Your task to perform on an android device: Open the Play Movies app and select the watchlist tab. Image 0: 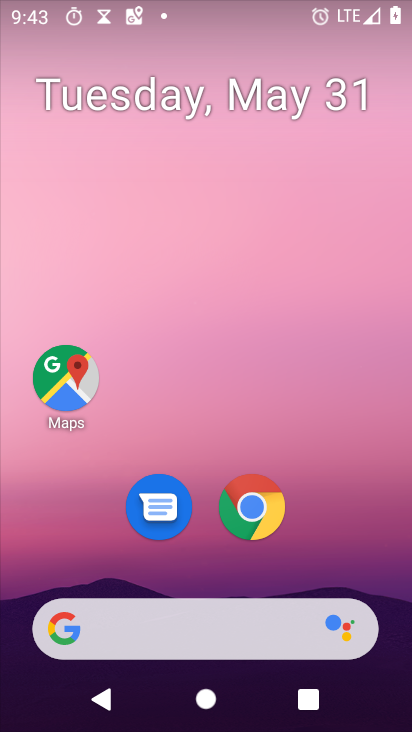
Step 0: drag from (24, 619) to (323, 234)
Your task to perform on an android device: Open the Play Movies app and select the watchlist tab. Image 1: 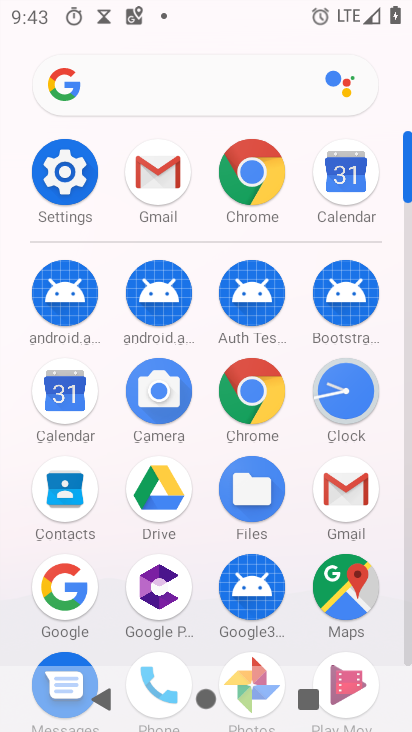
Step 1: drag from (25, 501) to (170, 241)
Your task to perform on an android device: Open the Play Movies app and select the watchlist tab. Image 2: 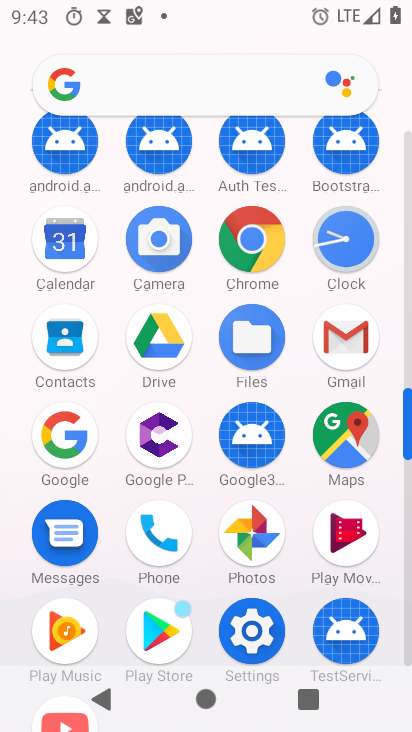
Step 2: click (347, 544)
Your task to perform on an android device: Open the Play Movies app and select the watchlist tab. Image 3: 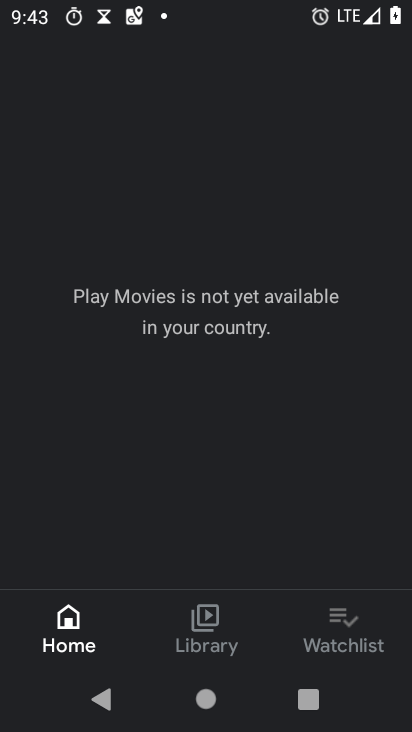
Step 3: task complete